Your task to perform on an android device: turn off sleep mode Image 0: 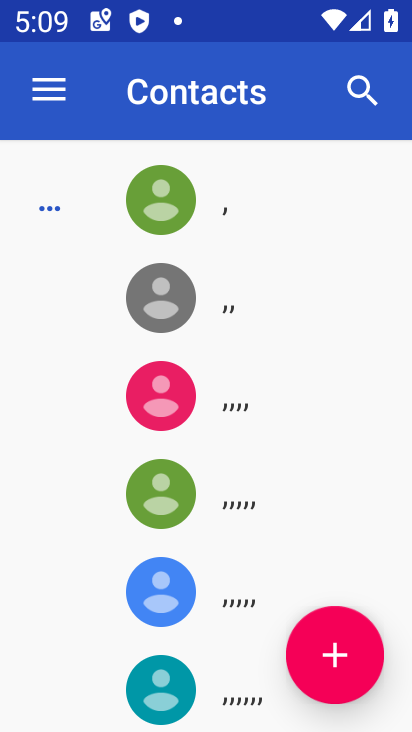
Step 0: press home button
Your task to perform on an android device: turn off sleep mode Image 1: 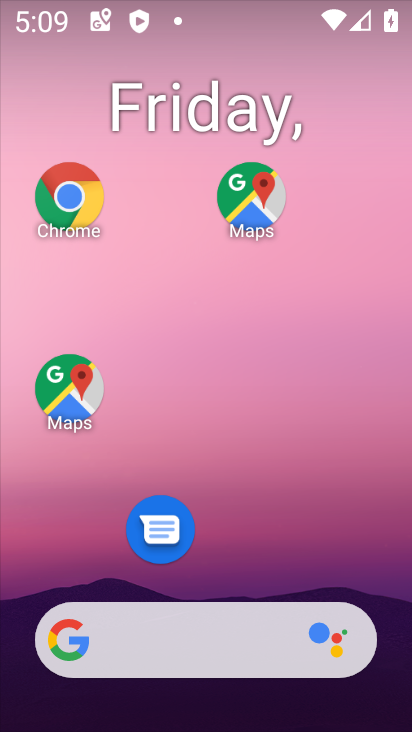
Step 1: drag from (247, 566) to (284, 192)
Your task to perform on an android device: turn off sleep mode Image 2: 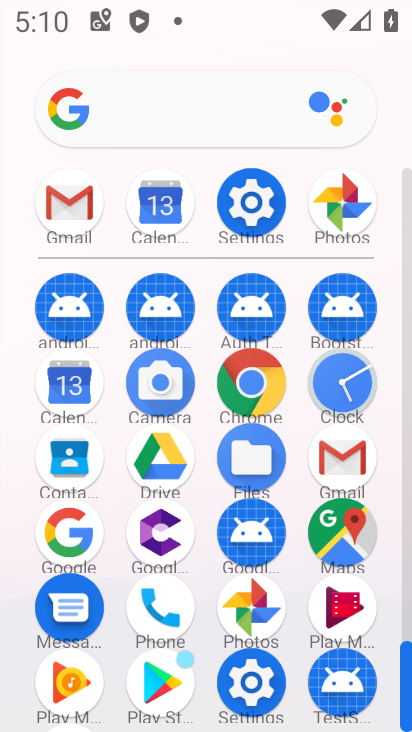
Step 2: drag from (204, 686) to (275, 322)
Your task to perform on an android device: turn off sleep mode Image 3: 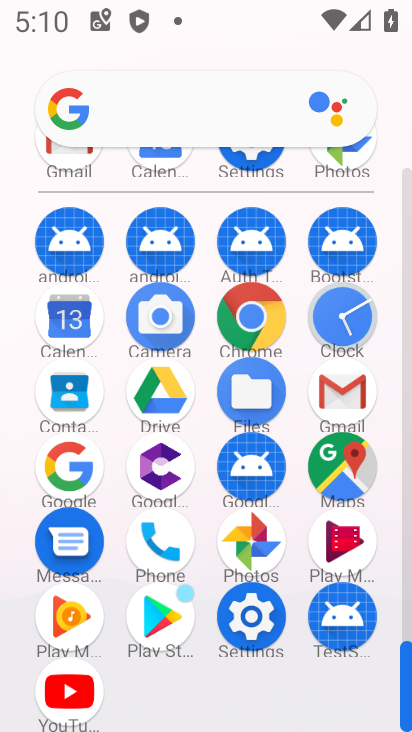
Step 3: click (255, 614)
Your task to perform on an android device: turn off sleep mode Image 4: 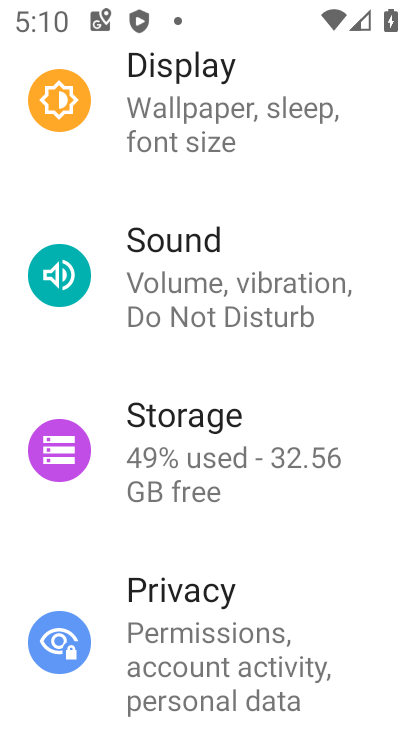
Step 4: task complete